Your task to perform on an android device: Open the calendar and show me this week's events? Image 0: 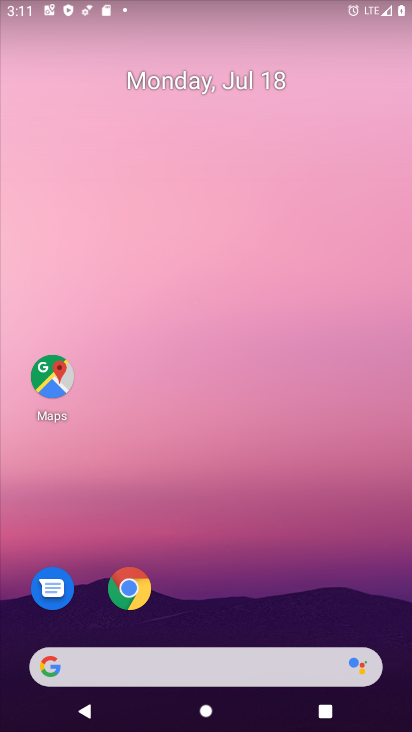
Step 0: drag from (211, 594) to (288, 12)
Your task to perform on an android device: Open the calendar and show me this week's events? Image 1: 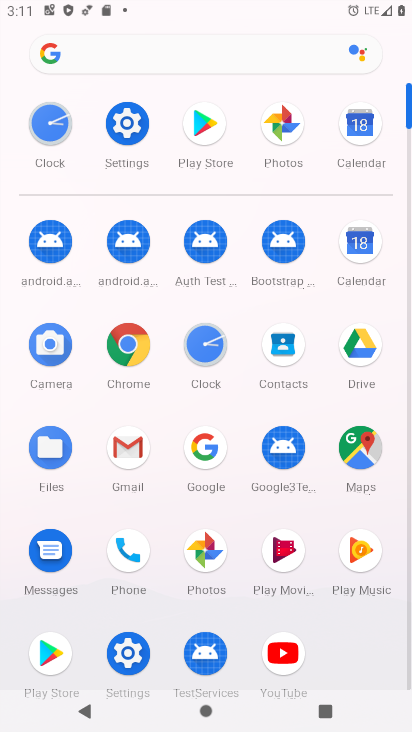
Step 1: click (366, 234)
Your task to perform on an android device: Open the calendar and show me this week's events? Image 2: 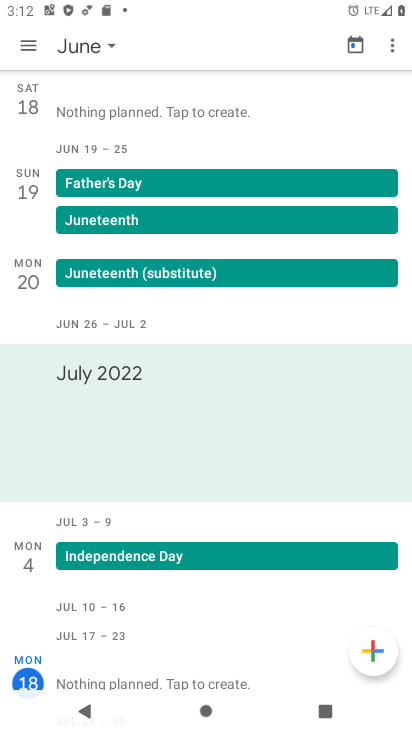
Step 2: task complete